Your task to perform on an android device: turn off translation in the chrome app Image 0: 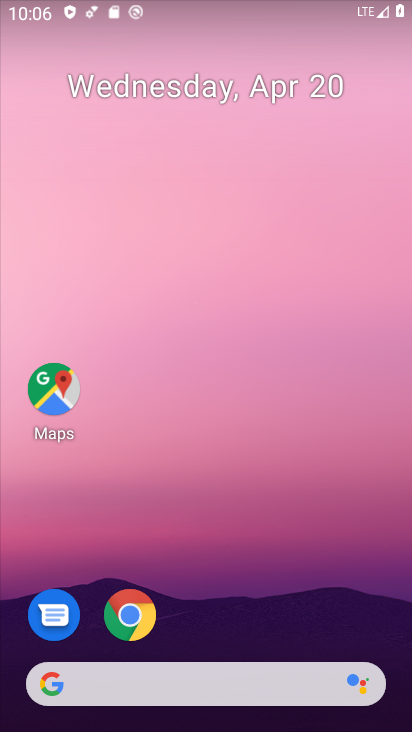
Step 0: click (123, 600)
Your task to perform on an android device: turn off translation in the chrome app Image 1: 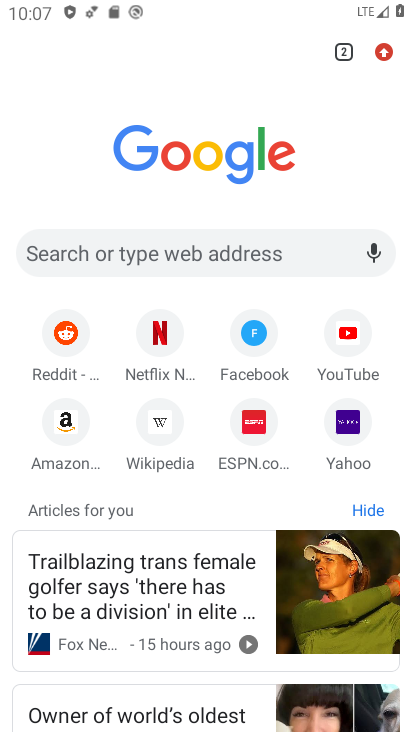
Step 1: click (392, 58)
Your task to perform on an android device: turn off translation in the chrome app Image 2: 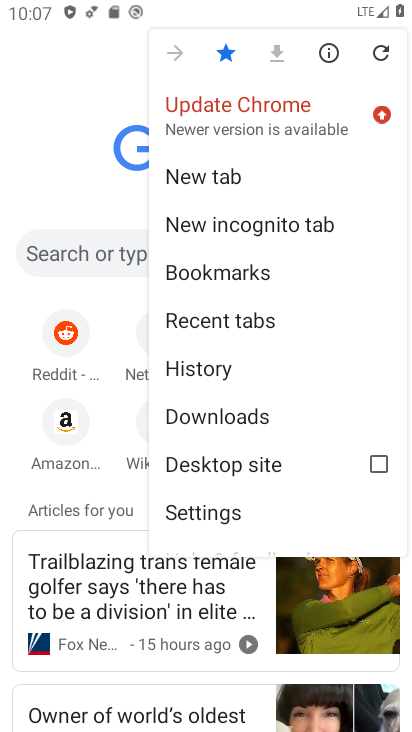
Step 2: click (295, 517)
Your task to perform on an android device: turn off translation in the chrome app Image 3: 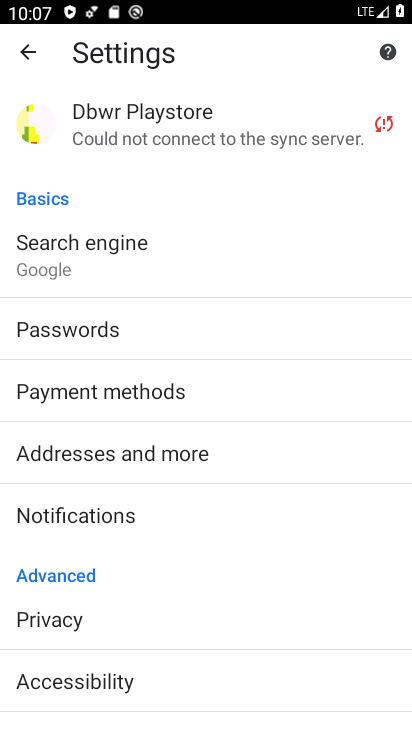
Step 3: drag from (205, 605) to (213, 100)
Your task to perform on an android device: turn off translation in the chrome app Image 4: 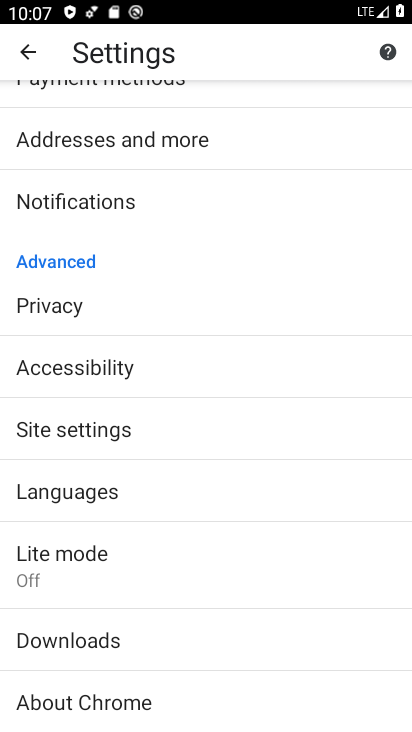
Step 4: click (206, 437)
Your task to perform on an android device: turn off translation in the chrome app Image 5: 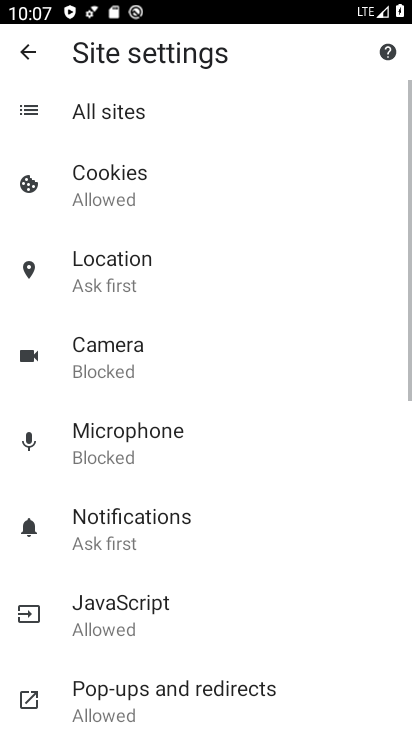
Step 5: drag from (219, 558) to (260, 374)
Your task to perform on an android device: turn off translation in the chrome app Image 6: 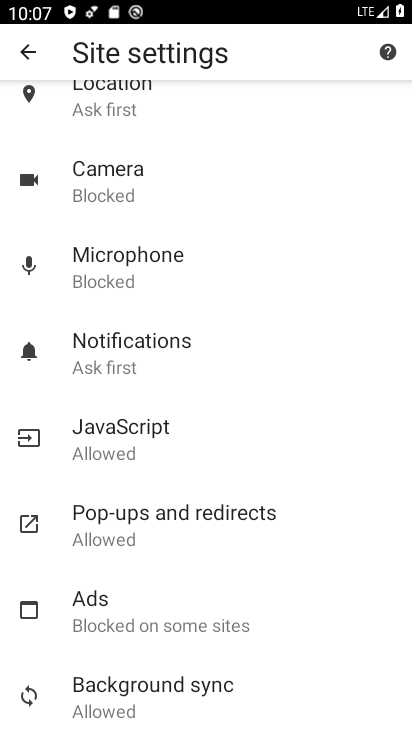
Step 6: click (29, 57)
Your task to perform on an android device: turn off translation in the chrome app Image 7: 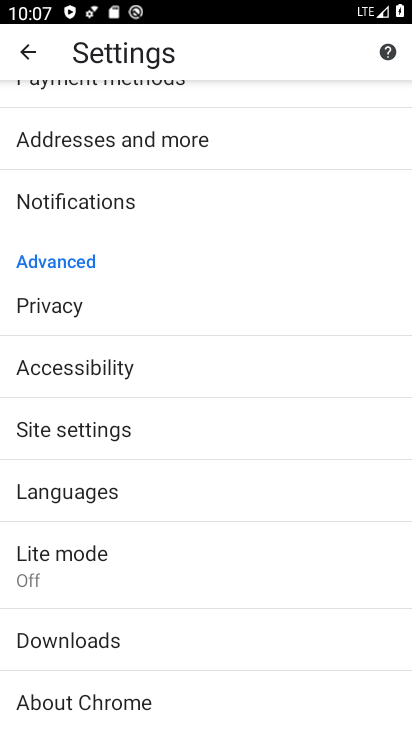
Step 7: click (36, 514)
Your task to perform on an android device: turn off translation in the chrome app Image 8: 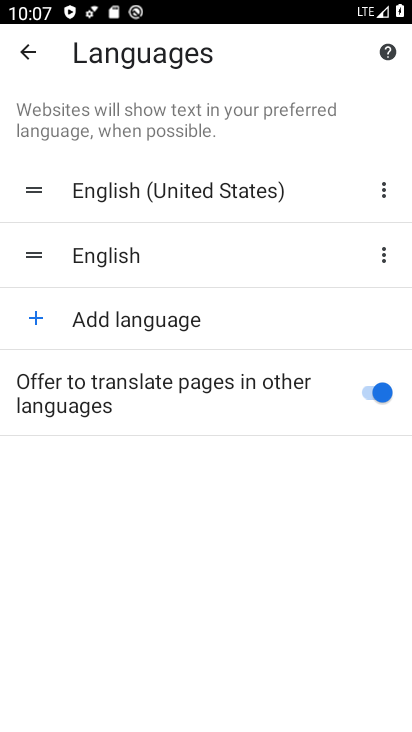
Step 8: click (263, 417)
Your task to perform on an android device: turn off translation in the chrome app Image 9: 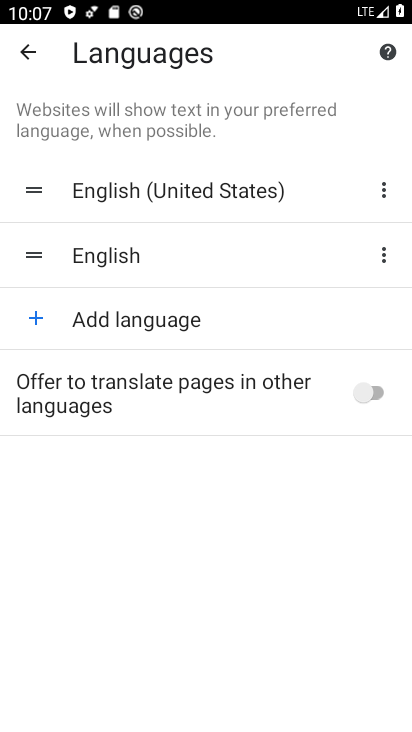
Step 9: task complete